Your task to perform on an android device: Go to sound settings Image 0: 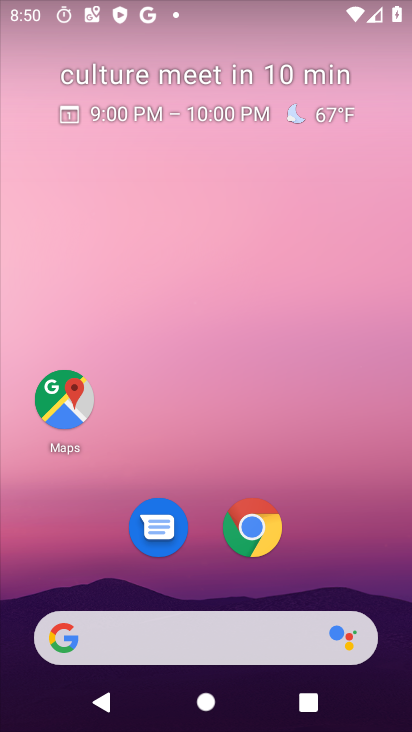
Step 0: drag from (233, 711) to (188, 36)
Your task to perform on an android device: Go to sound settings Image 1: 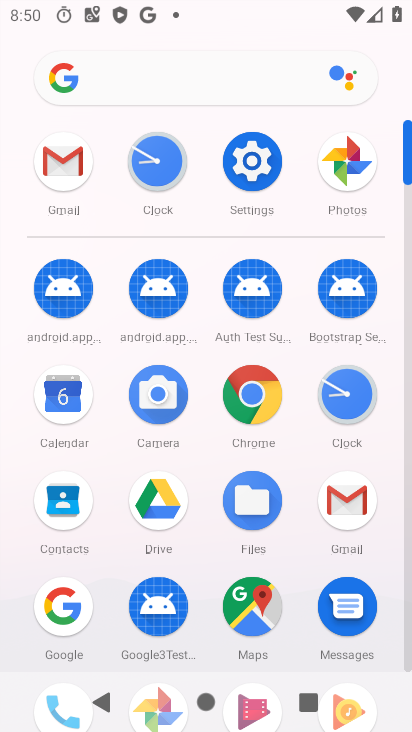
Step 1: click (242, 160)
Your task to perform on an android device: Go to sound settings Image 2: 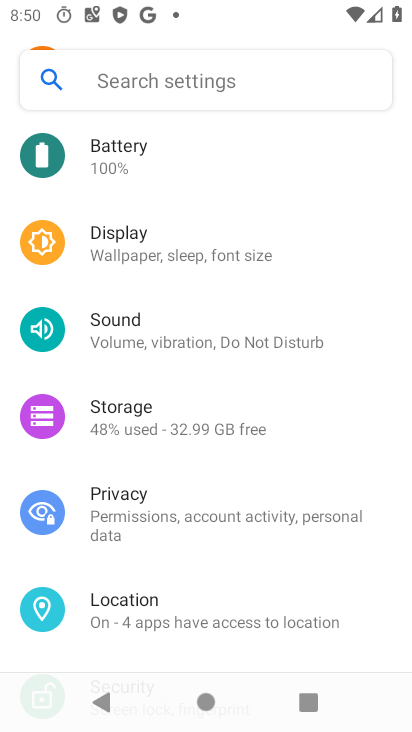
Step 2: click (118, 332)
Your task to perform on an android device: Go to sound settings Image 3: 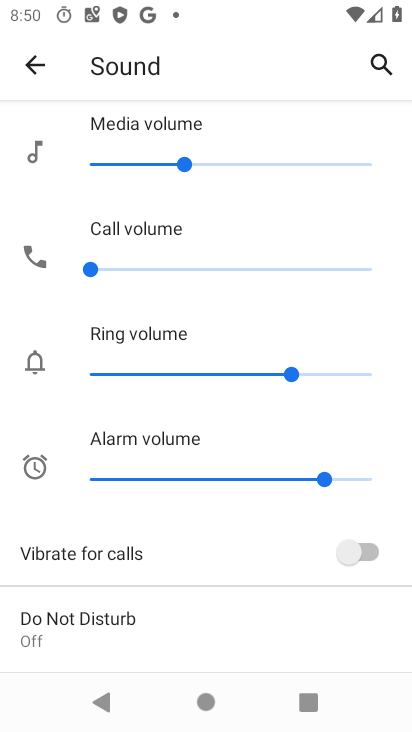
Step 3: task complete